Your task to perform on an android device: Search for the best rated headphones on Amazon Image 0: 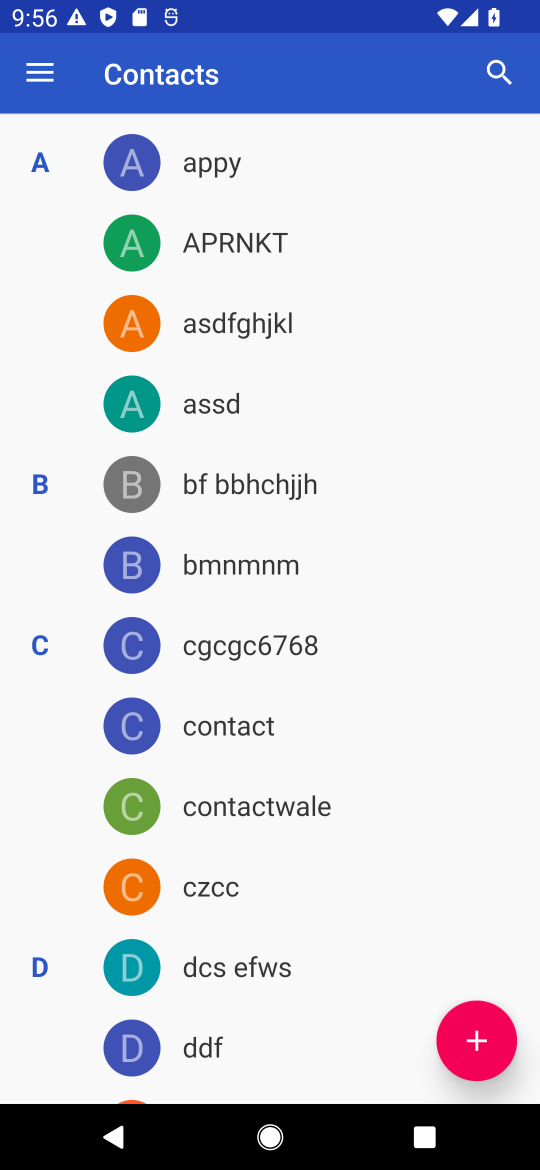
Step 0: press home button
Your task to perform on an android device: Search for the best rated headphones on Amazon Image 1: 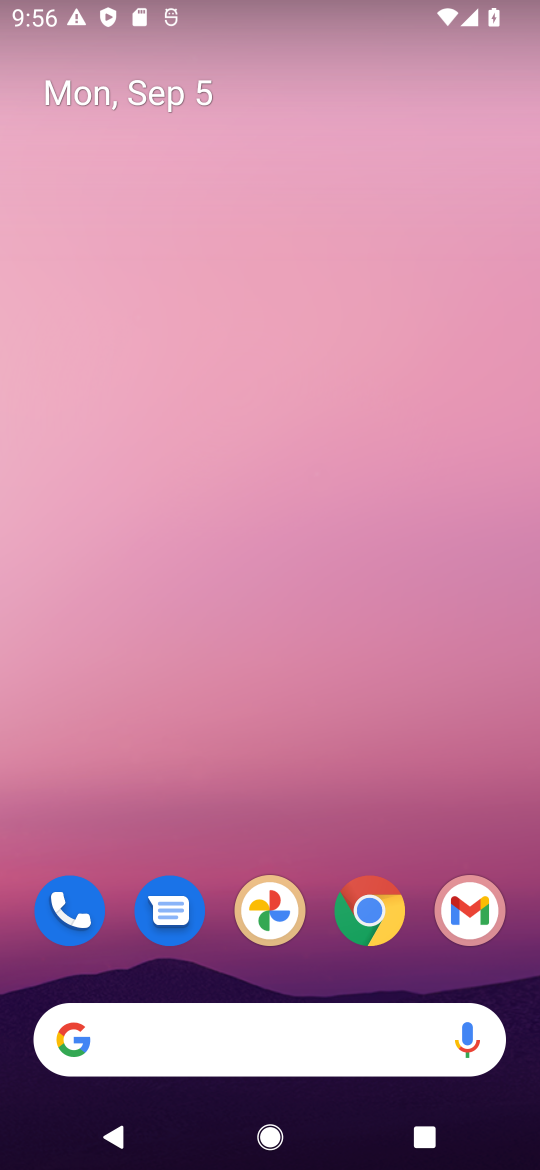
Step 1: click (393, 935)
Your task to perform on an android device: Search for the best rated headphones on Amazon Image 2: 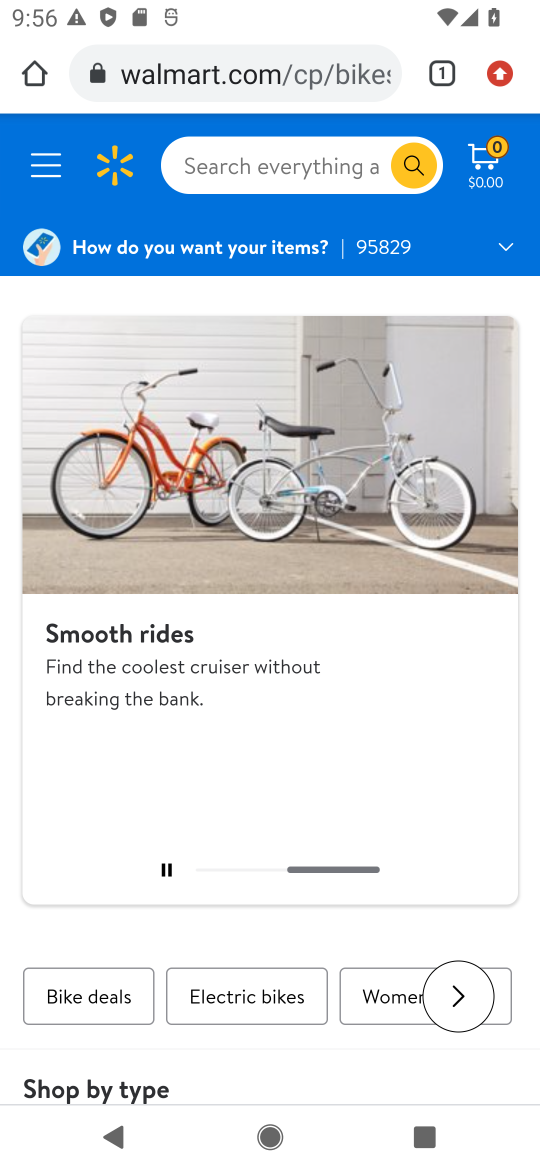
Step 2: click (226, 71)
Your task to perform on an android device: Search for the best rated headphones on Amazon Image 3: 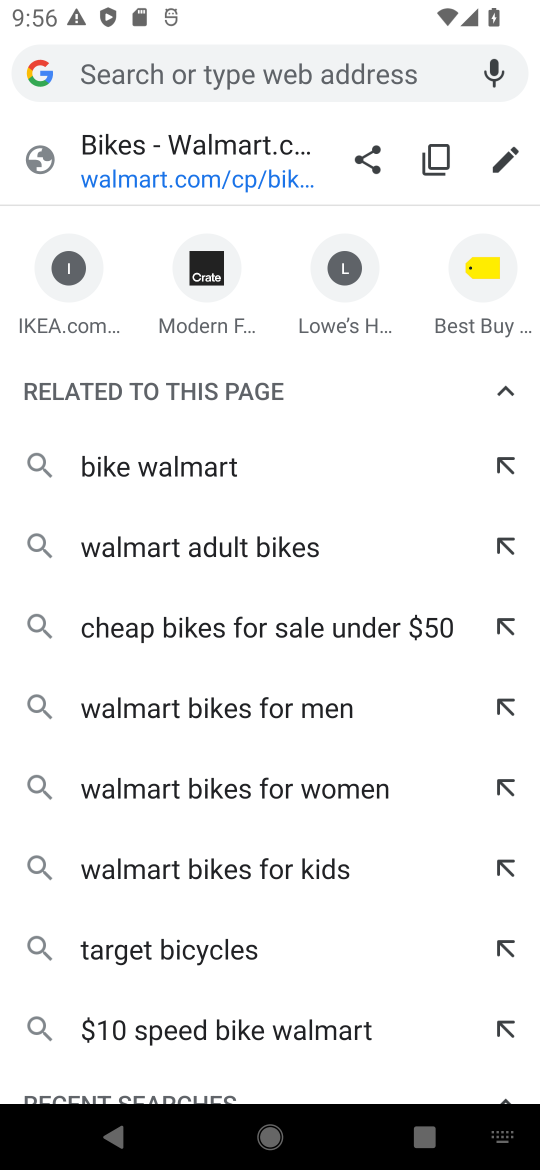
Step 3: type "amazon"
Your task to perform on an android device: Search for the best rated headphones on Amazon Image 4: 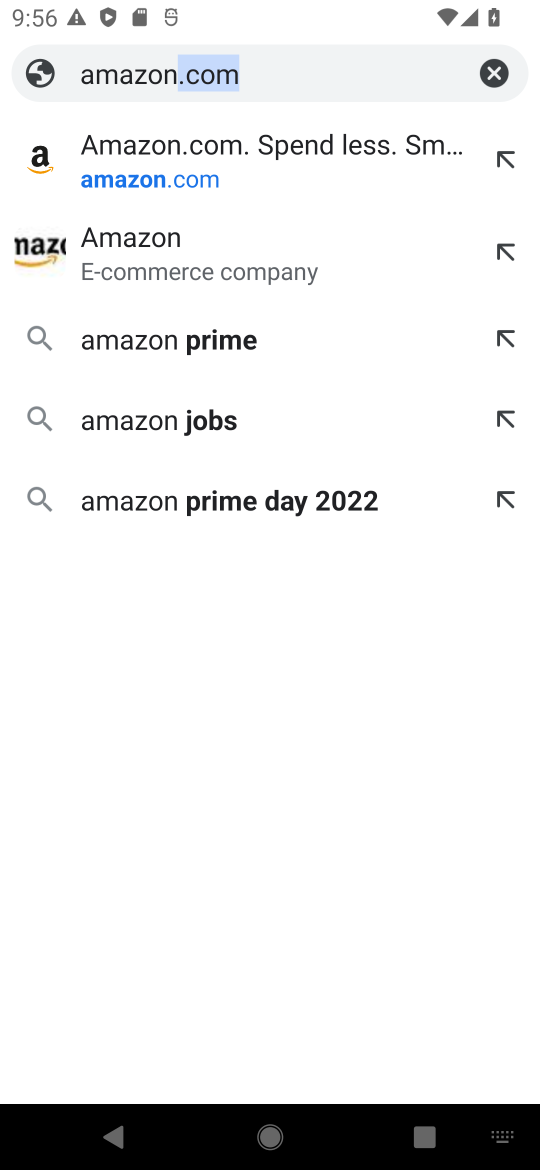
Step 4: click (324, 180)
Your task to perform on an android device: Search for the best rated headphones on Amazon Image 5: 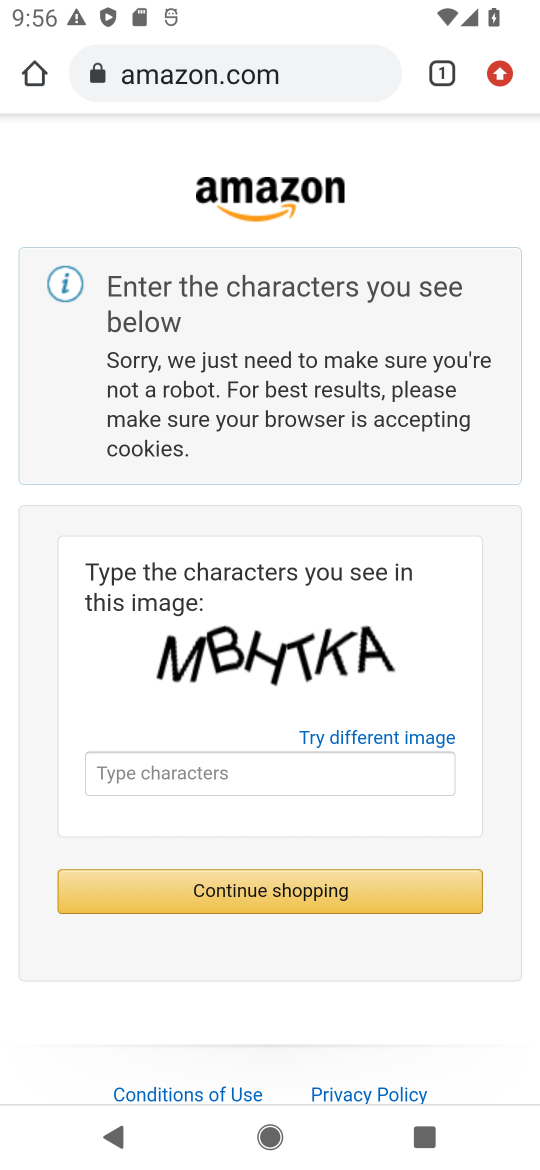
Step 5: click (343, 892)
Your task to perform on an android device: Search for the best rated headphones on Amazon Image 6: 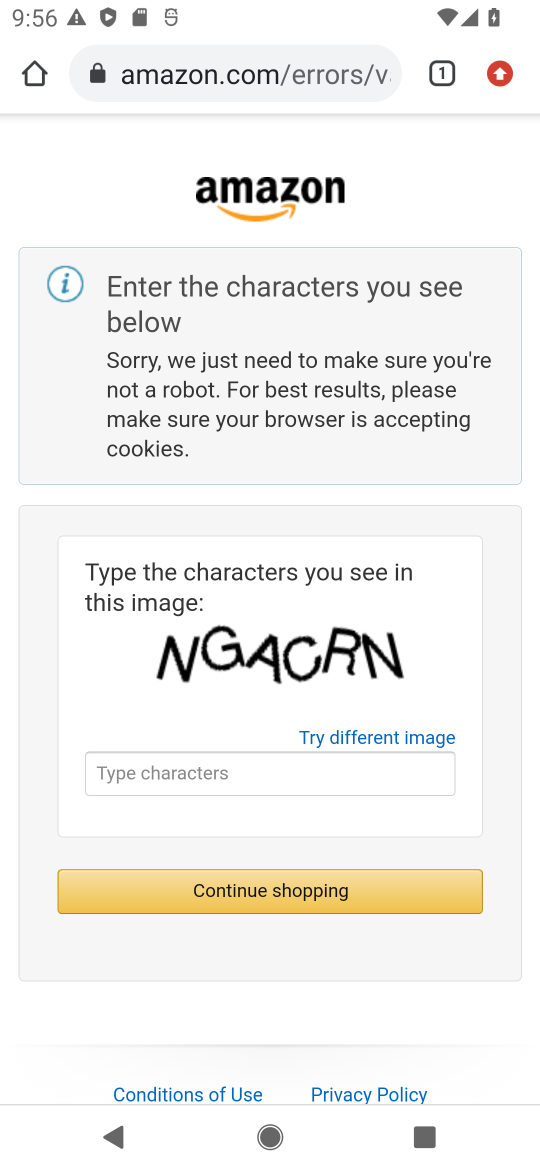
Step 6: click (248, 772)
Your task to perform on an android device: Search for the best rated headphones on Amazon Image 7: 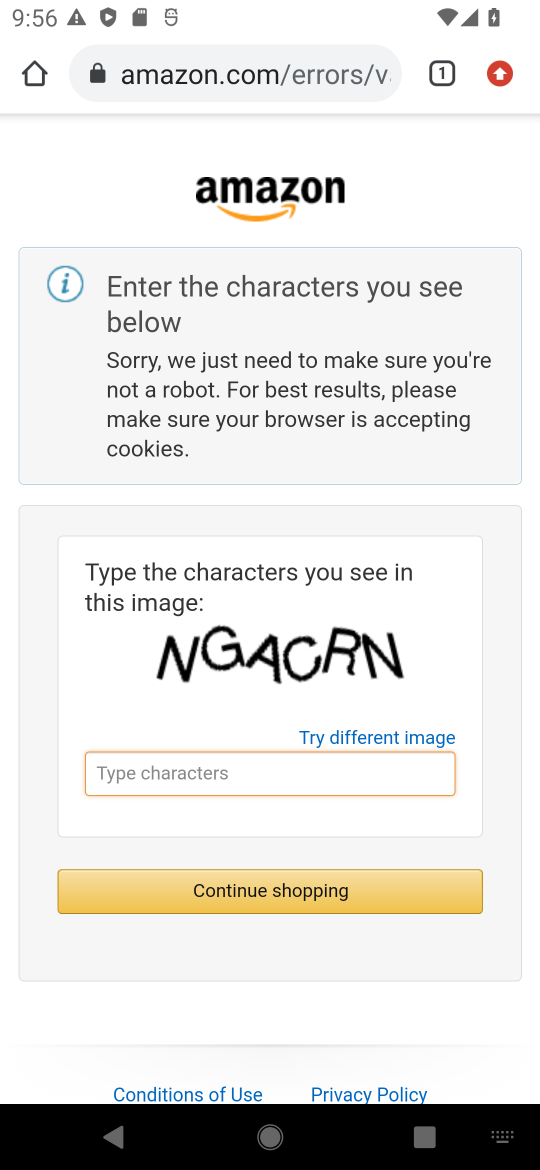
Step 7: type "ngacrn"
Your task to perform on an android device: Search for the best rated headphones on Amazon Image 8: 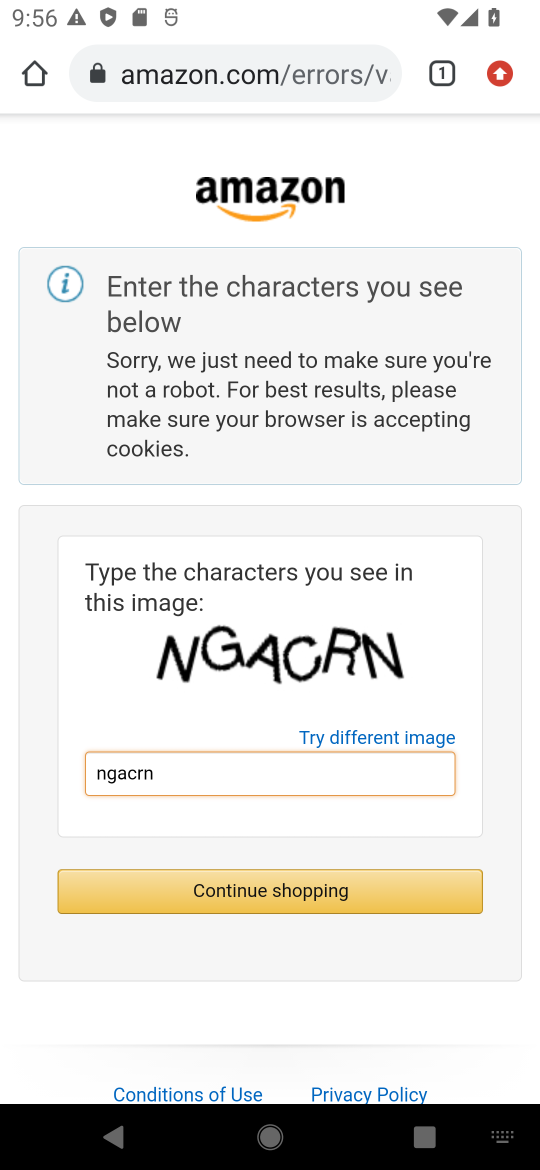
Step 8: click (287, 885)
Your task to perform on an android device: Search for the best rated headphones on Amazon Image 9: 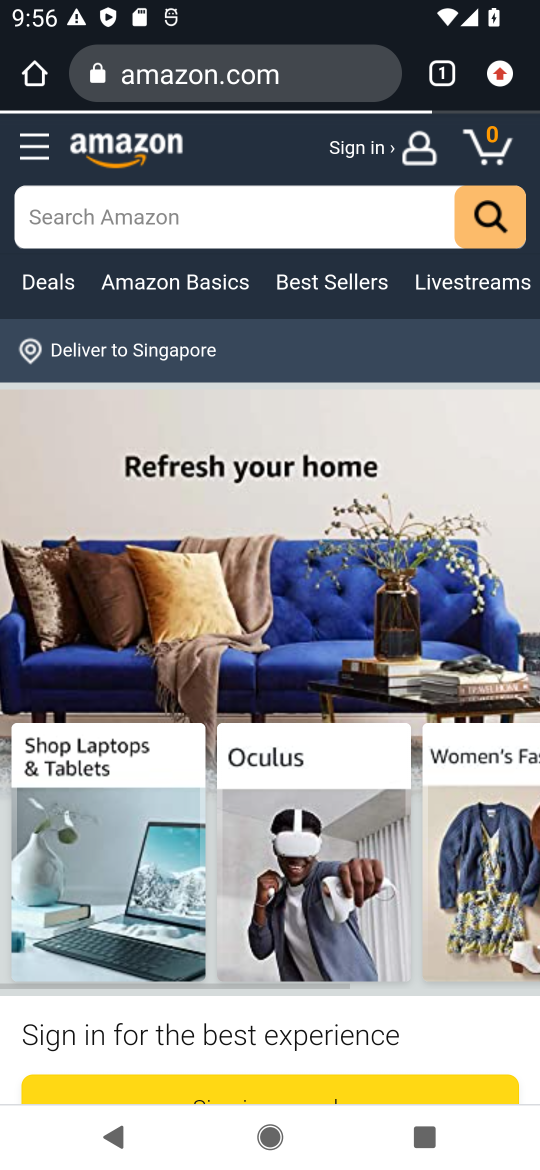
Step 9: click (290, 234)
Your task to perform on an android device: Search for the best rated headphones on Amazon Image 10: 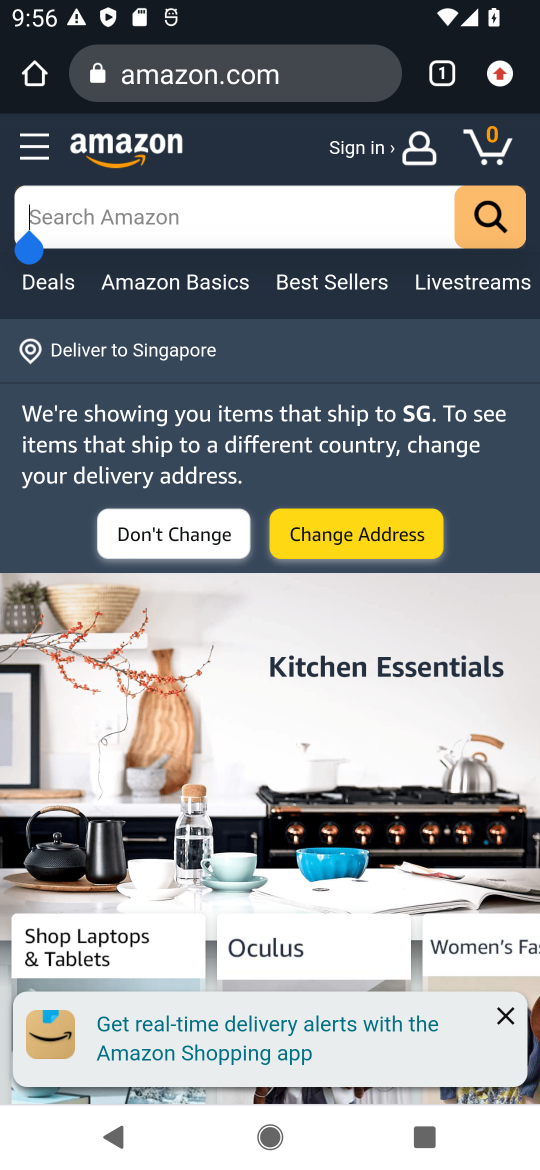
Step 10: type "best rated headphones"
Your task to perform on an android device: Search for the best rated headphones on Amazon Image 11: 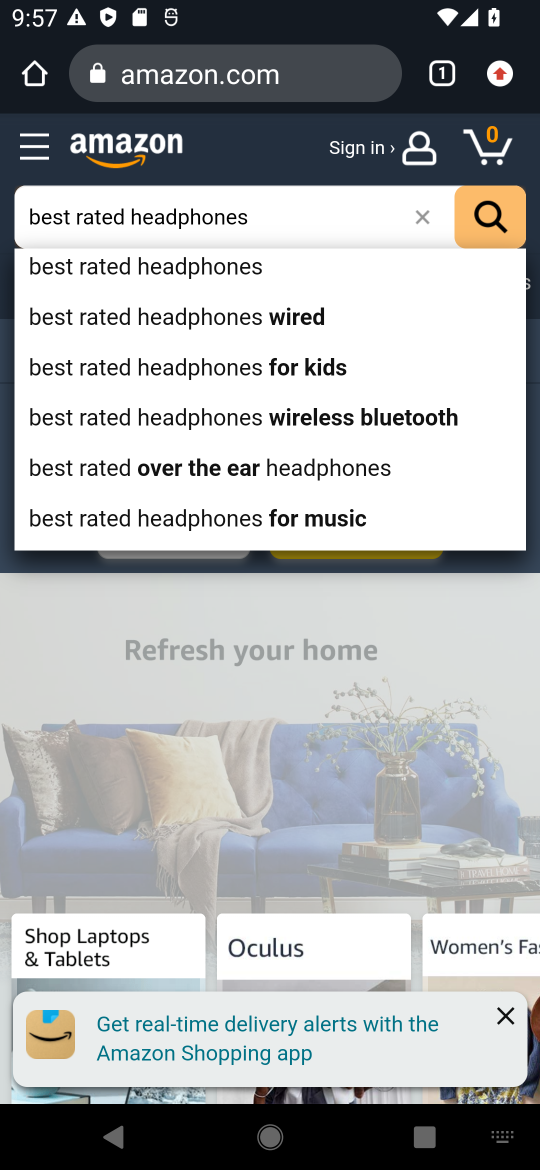
Step 11: click (265, 275)
Your task to perform on an android device: Search for the best rated headphones on Amazon Image 12: 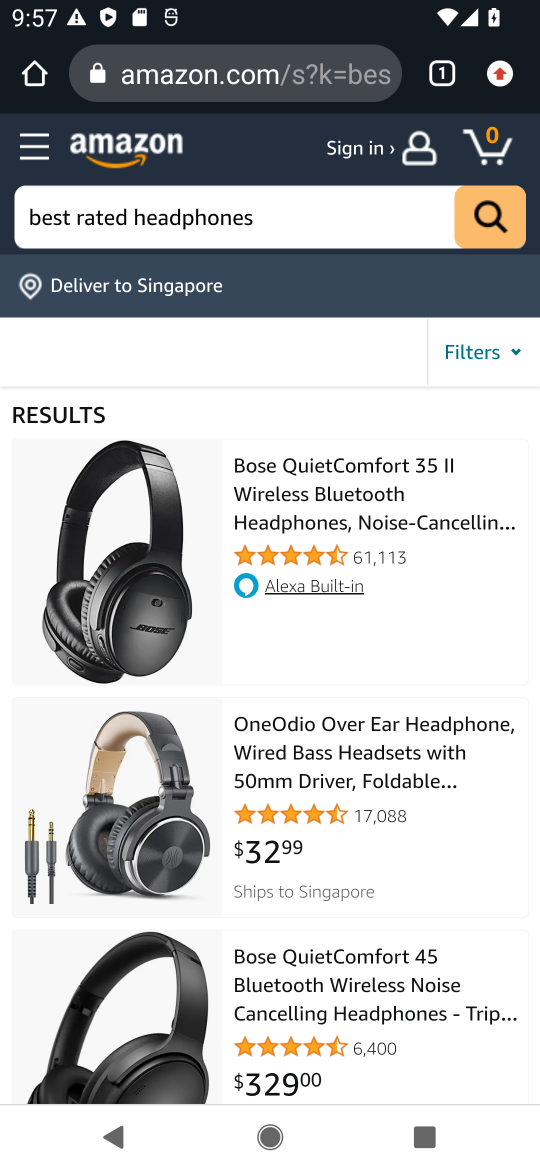
Step 12: task complete